Your task to perform on an android device: change timer sound Image 0: 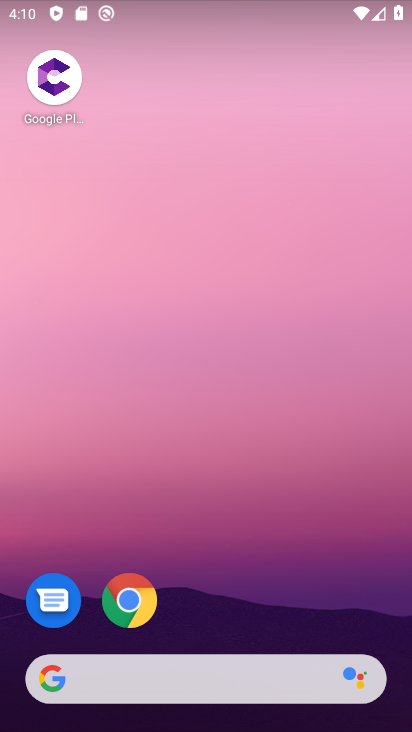
Step 0: drag from (228, 647) to (333, 172)
Your task to perform on an android device: change timer sound Image 1: 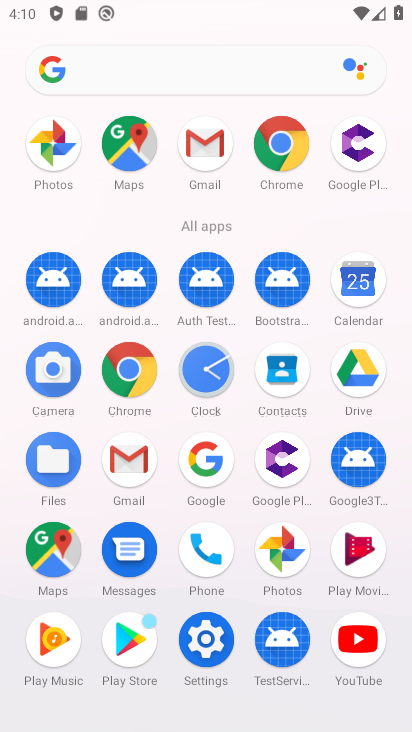
Step 1: click (217, 370)
Your task to perform on an android device: change timer sound Image 2: 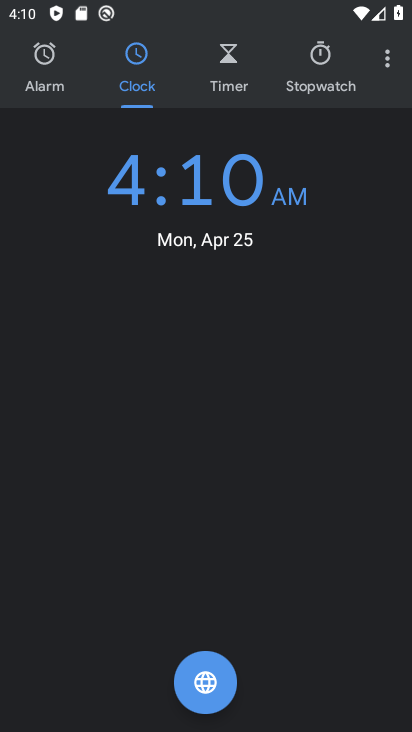
Step 2: click (382, 65)
Your task to perform on an android device: change timer sound Image 3: 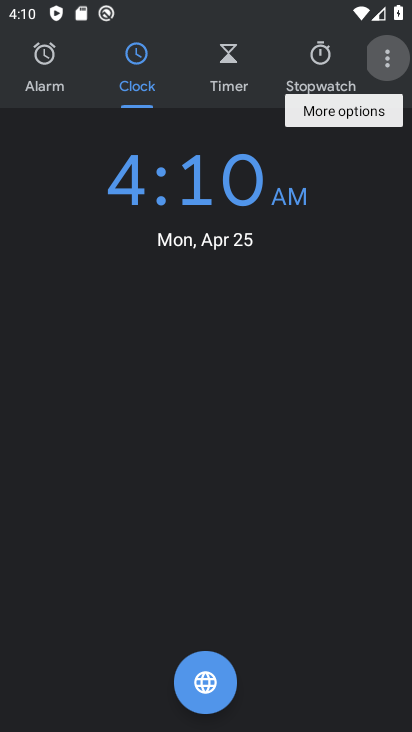
Step 3: click (382, 65)
Your task to perform on an android device: change timer sound Image 4: 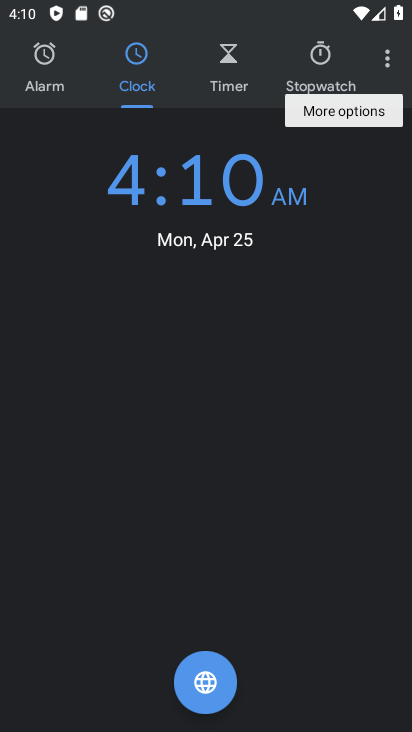
Step 4: click (382, 65)
Your task to perform on an android device: change timer sound Image 5: 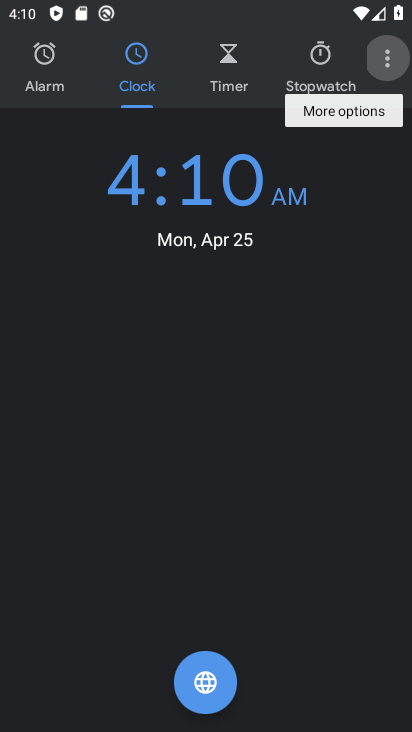
Step 5: click (388, 57)
Your task to perform on an android device: change timer sound Image 6: 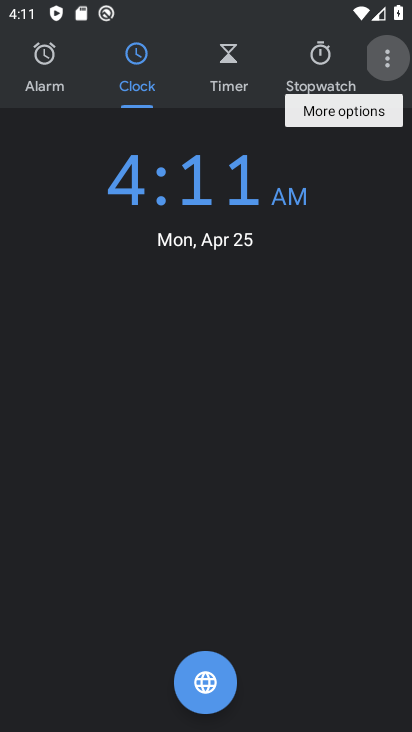
Step 6: click (379, 102)
Your task to perform on an android device: change timer sound Image 7: 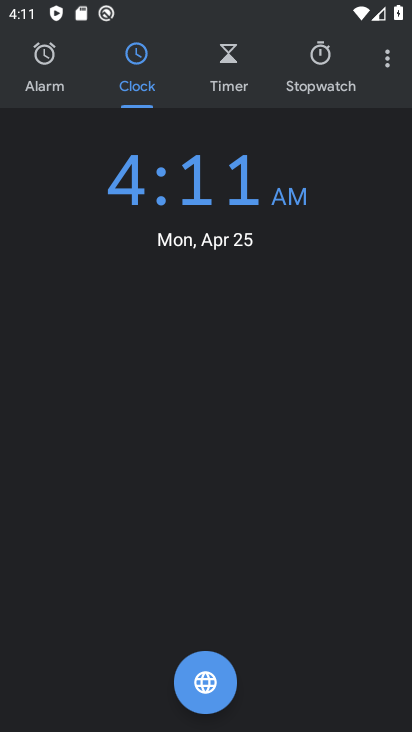
Step 7: click (392, 59)
Your task to perform on an android device: change timer sound Image 8: 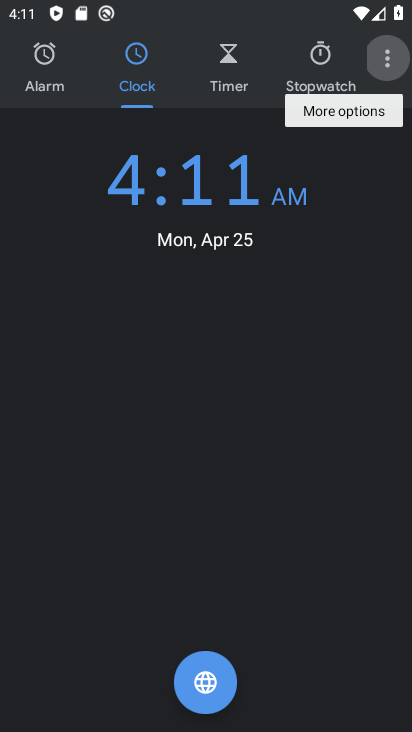
Step 8: click (385, 53)
Your task to perform on an android device: change timer sound Image 9: 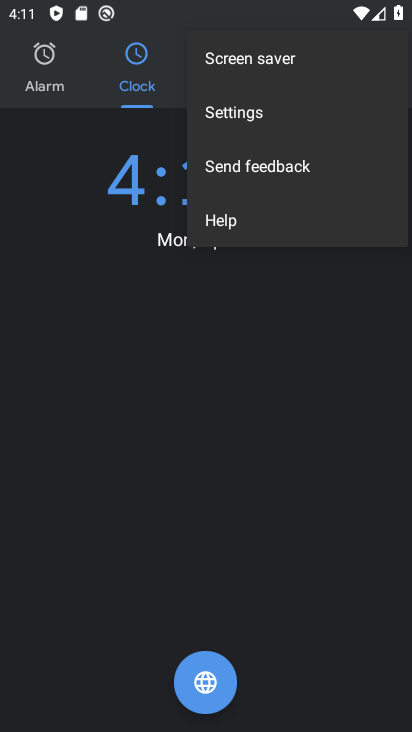
Step 9: click (341, 89)
Your task to perform on an android device: change timer sound Image 10: 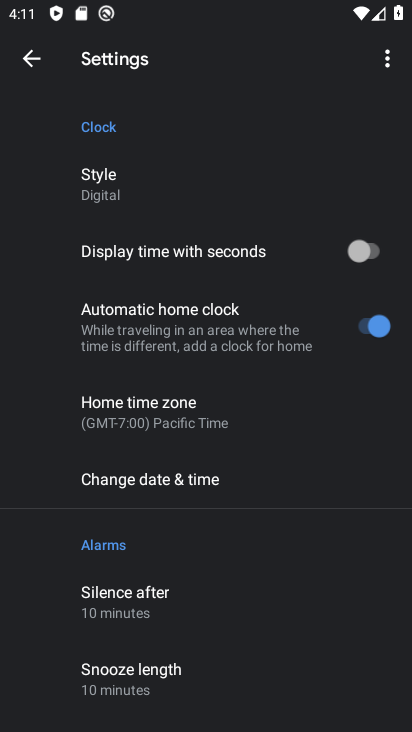
Step 10: drag from (170, 612) to (302, 232)
Your task to perform on an android device: change timer sound Image 11: 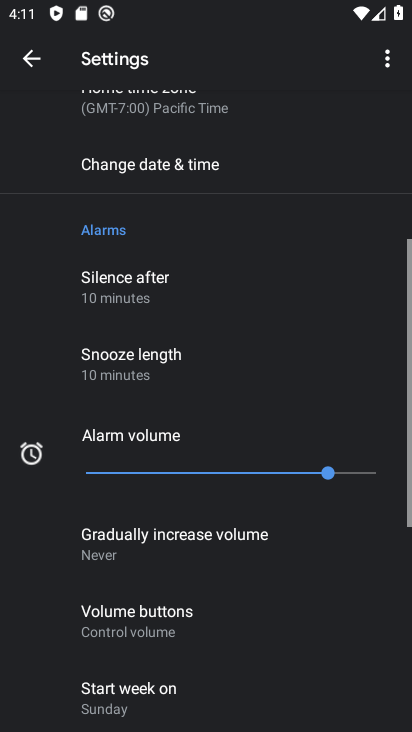
Step 11: drag from (244, 637) to (366, 256)
Your task to perform on an android device: change timer sound Image 12: 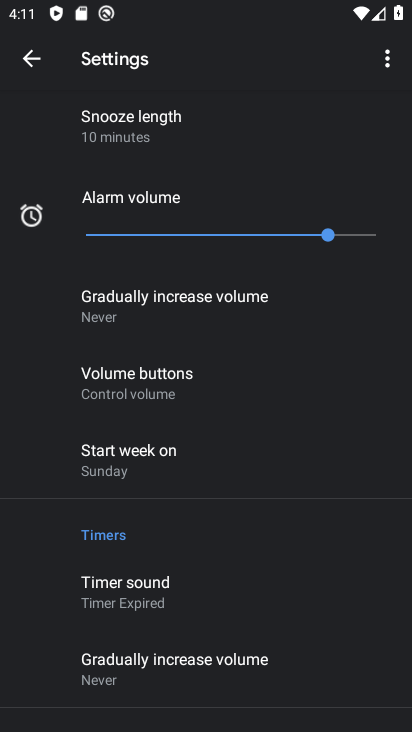
Step 12: click (228, 596)
Your task to perform on an android device: change timer sound Image 13: 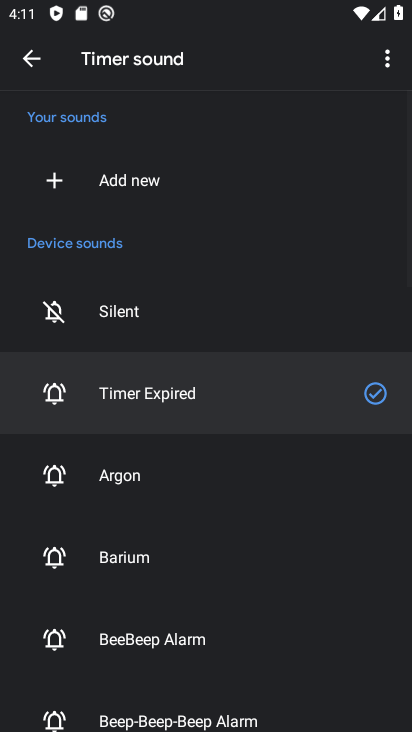
Step 13: drag from (242, 660) to (325, 355)
Your task to perform on an android device: change timer sound Image 14: 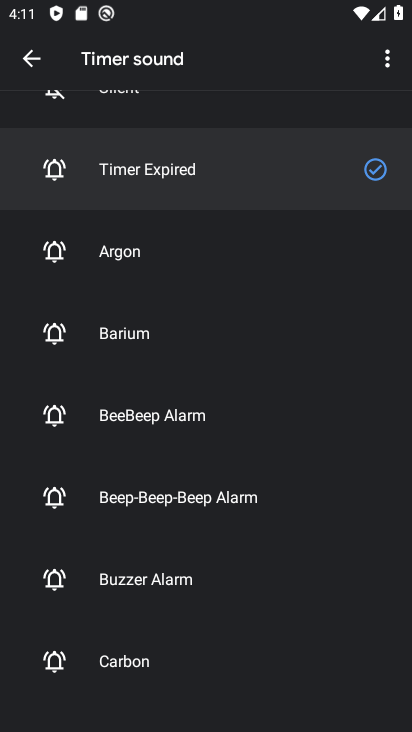
Step 14: click (248, 568)
Your task to perform on an android device: change timer sound Image 15: 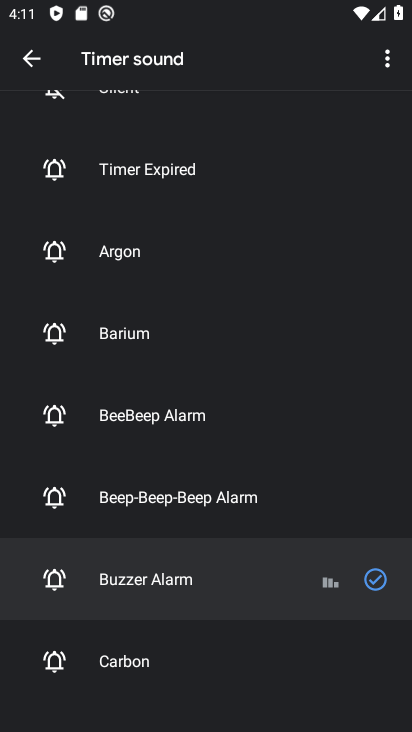
Step 15: task complete